Your task to perform on an android device: Where can I buy a nice beach tote? Image 0: 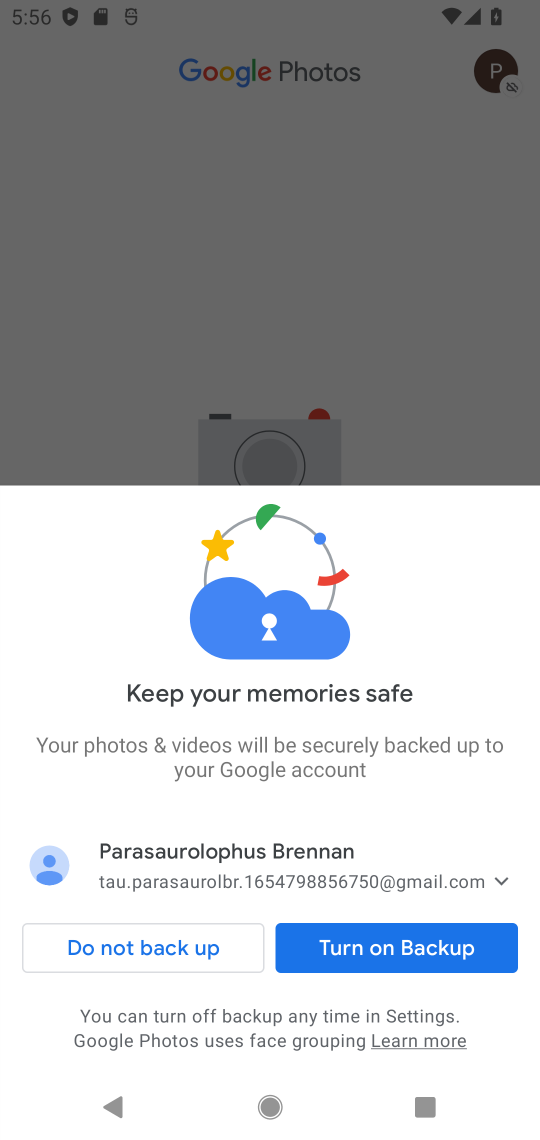
Step 0: press home button
Your task to perform on an android device: Where can I buy a nice beach tote? Image 1: 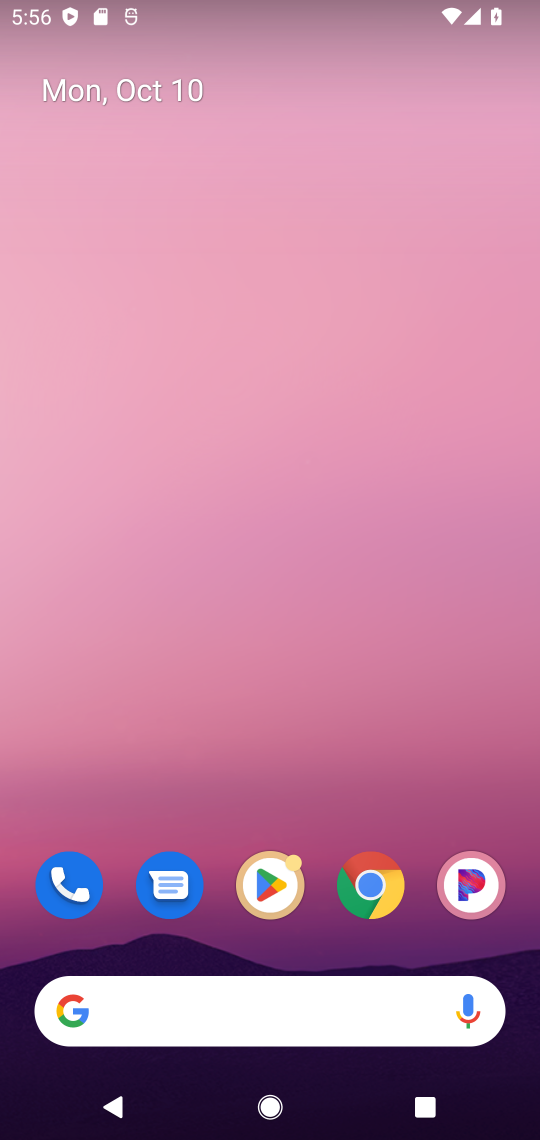
Step 1: click (370, 878)
Your task to perform on an android device: Where can I buy a nice beach tote? Image 2: 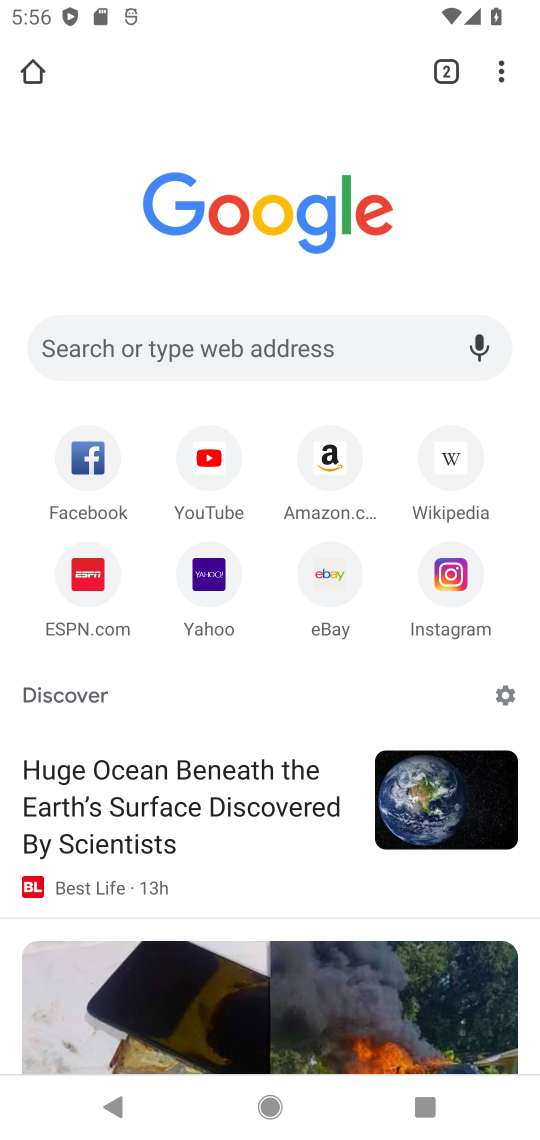
Step 2: click (202, 337)
Your task to perform on an android device: Where can I buy a nice beach tote? Image 3: 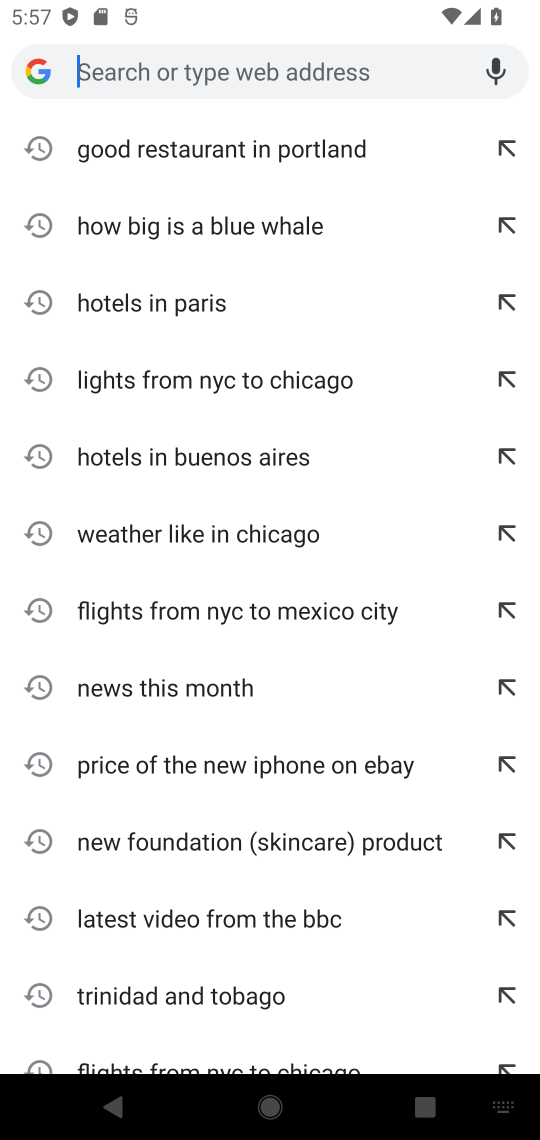
Step 3: type "Where can I buy a nice beach tote"
Your task to perform on an android device: Where can I buy a nice beach tote? Image 4: 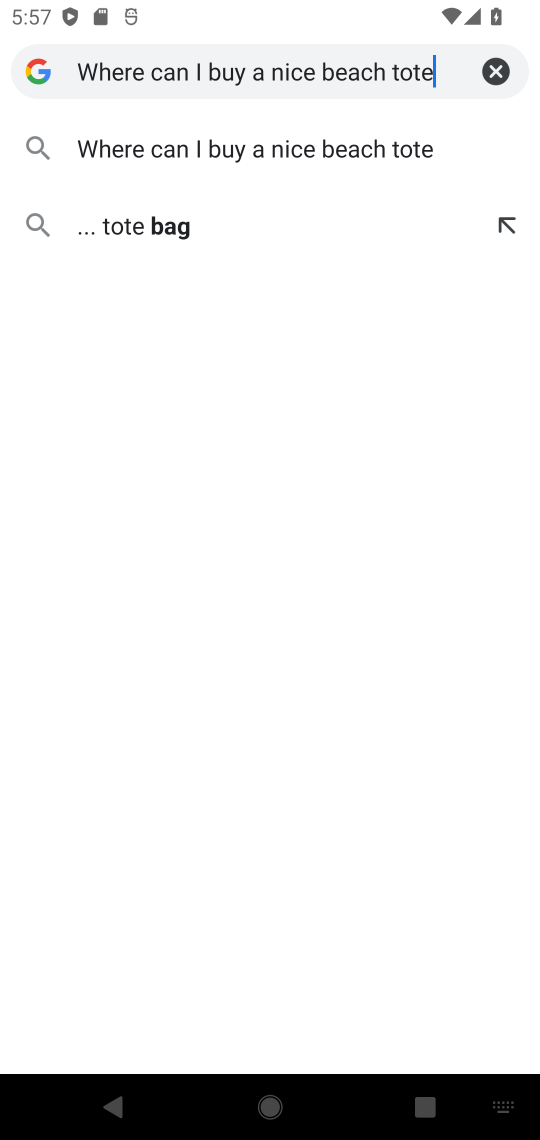
Step 4: click (287, 158)
Your task to perform on an android device: Where can I buy a nice beach tote? Image 5: 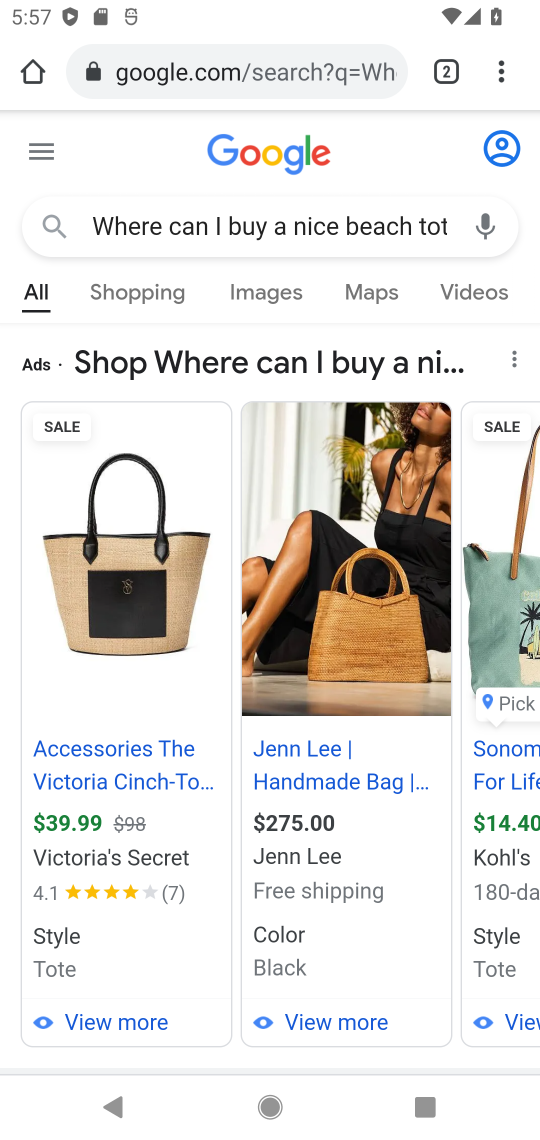
Step 5: drag from (231, 887) to (186, 3)
Your task to perform on an android device: Where can I buy a nice beach tote? Image 6: 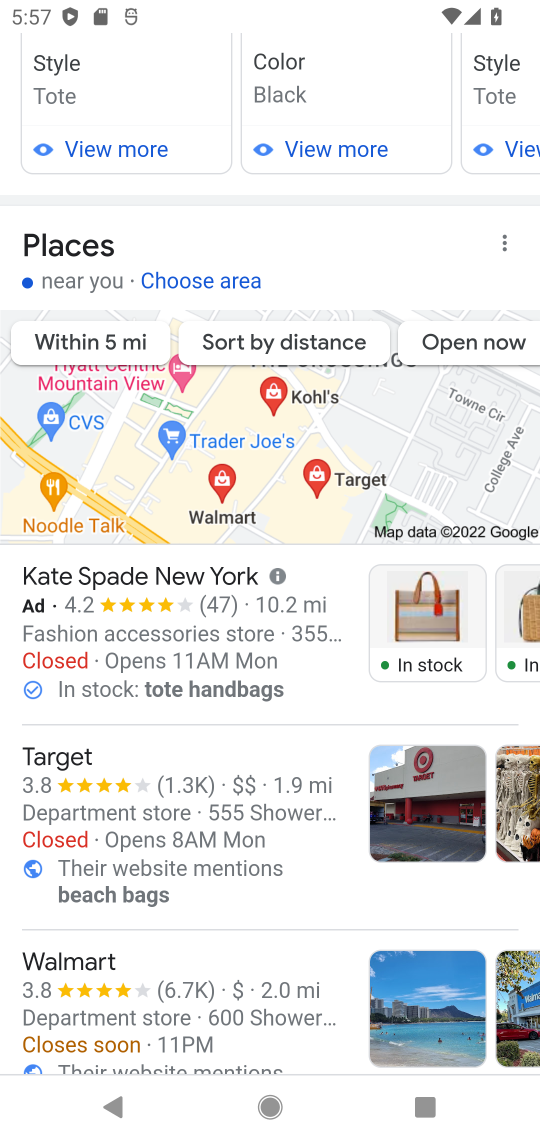
Step 6: drag from (252, 886) to (258, 437)
Your task to perform on an android device: Where can I buy a nice beach tote? Image 7: 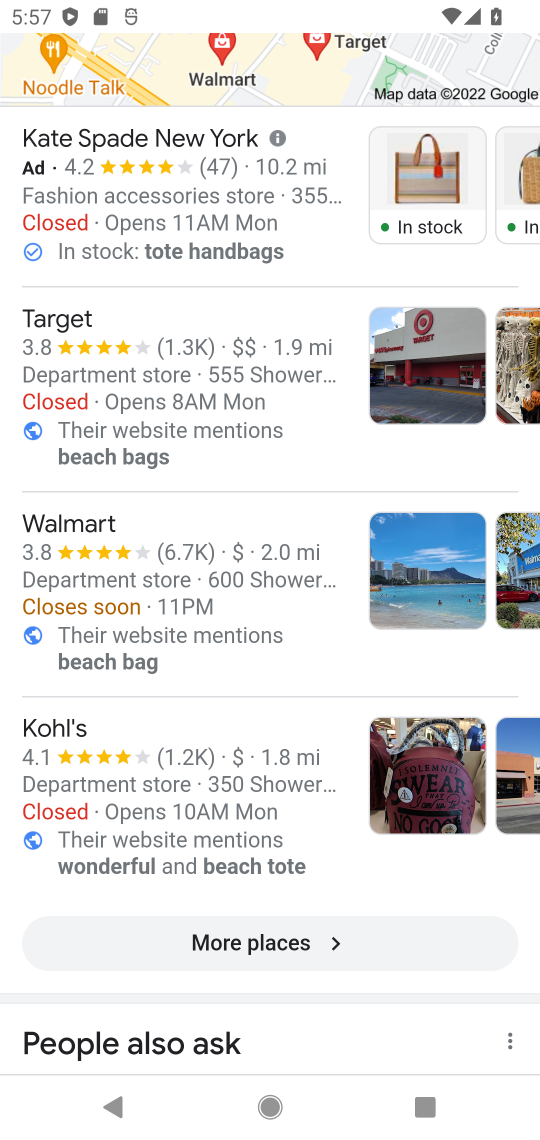
Step 7: click (288, 932)
Your task to perform on an android device: Where can I buy a nice beach tote? Image 8: 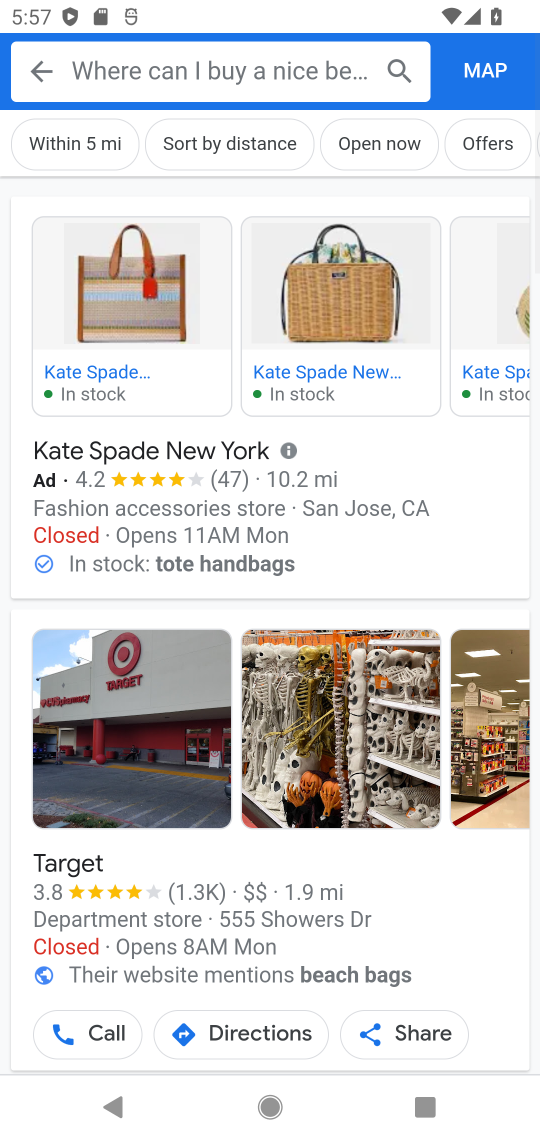
Step 8: task complete